Your task to perform on an android device: open app "DuckDuckGo Privacy Browser" (install if not already installed), go to login, and select forgot password Image 0: 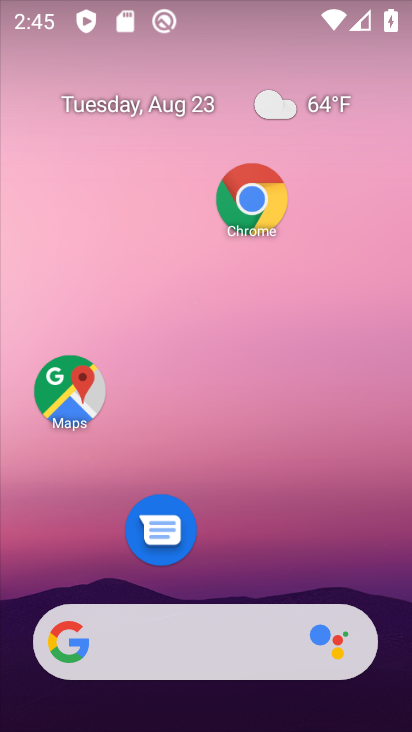
Step 0: drag from (210, 552) to (302, 0)
Your task to perform on an android device: open app "DuckDuckGo Privacy Browser" (install if not already installed), go to login, and select forgot password Image 1: 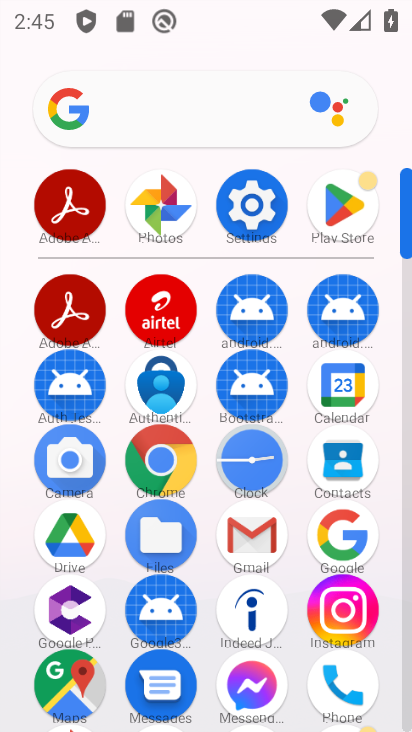
Step 1: click (342, 221)
Your task to perform on an android device: open app "DuckDuckGo Privacy Browser" (install if not already installed), go to login, and select forgot password Image 2: 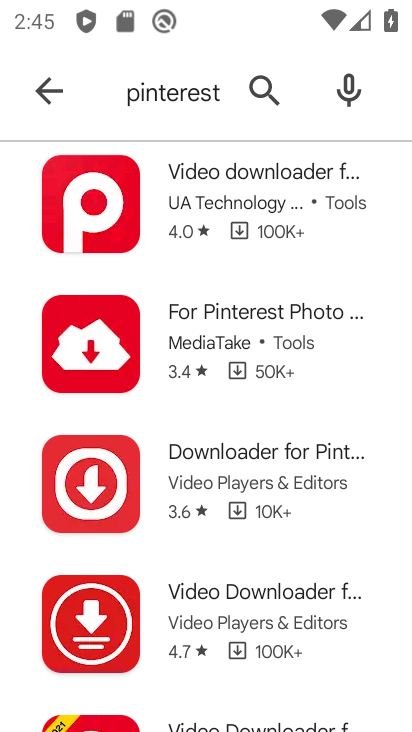
Step 2: click (168, 104)
Your task to perform on an android device: open app "DuckDuckGo Privacy Browser" (install if not already installed), go to login, and select forgot password Image 3: 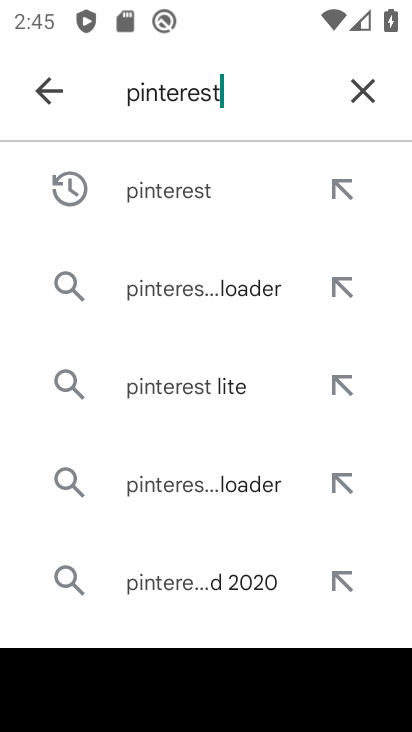
Step 3: click (355, 91)
Your task to perform on an android device: open app "DuckDuckGo Privacy Browser" (install if not already installed), go to login, and select forgot password Image 4: 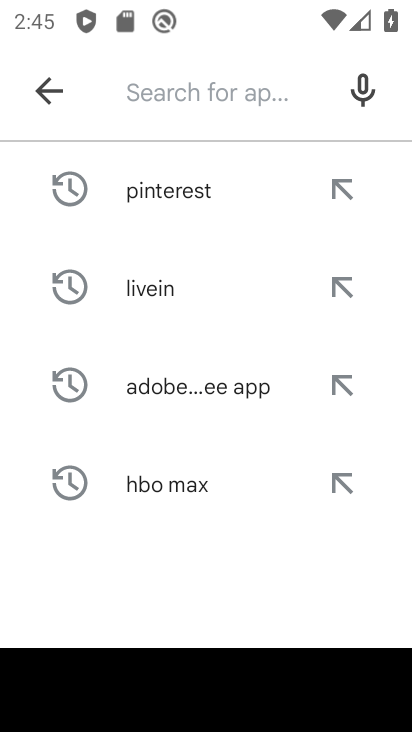
Step 4: type "Duckduckgo"
Your task to perform on an android device: open app "DuckDuckGo Privacy Browser" (install if not already installed), go to login, and select forgot password Image 5: 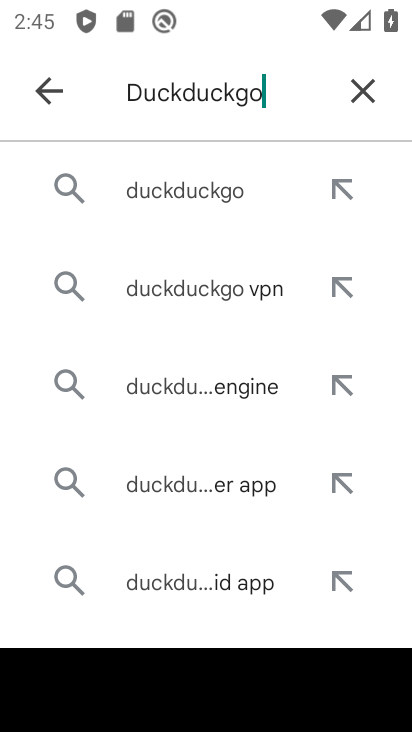
Step 5: click (218, 185)
Your task to perform on an android device: open app "DuckDuckGo Privacy Browser" (install if not already installed), go to login, and select forgot password Image 6: 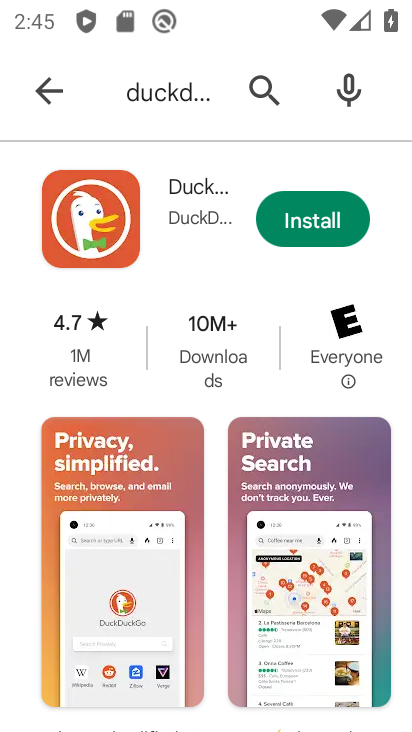
Step 6: click (330, 219)
Your task to perform on an android device: open app "DuckDuckGo Privacy Browser" (install if not already installed), go to login, and select forgot password Image 7: 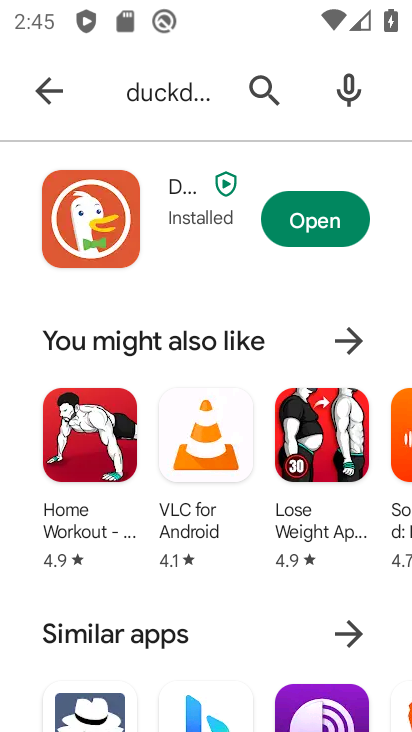
Step 7: click (326, 223)
Your task to perform on an android device: open app "DuckDuckGo Privacy Browser" (install if not already installed), go to login, and select forgot password Image 8: 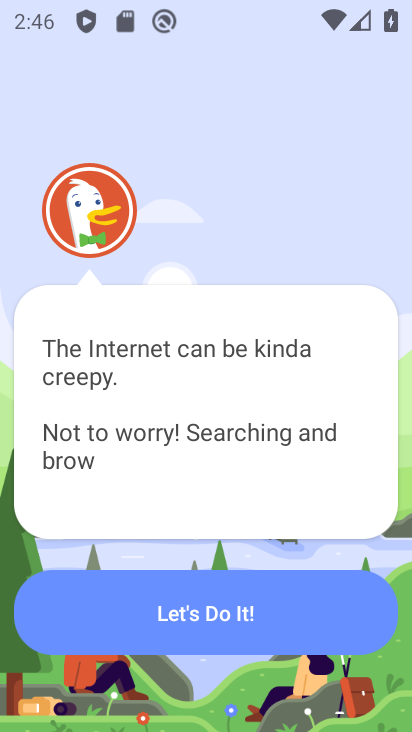
Step 8: click (230, 615)
Your task to perform on an android device: open app "DuckDuckGo Privacy Browser" (install if not already installed), go to login, and select forgot password Image 9: 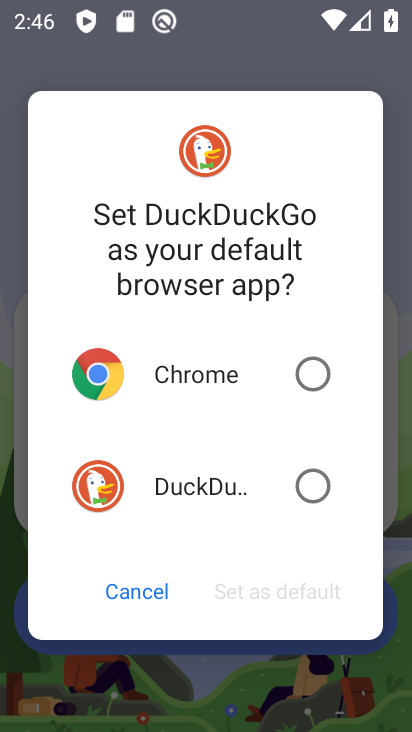
Step 9: click (292, 489)
Your task to perform on an android device: open app "DuckDuckGo Privacy Browser" (install if not already installed), go to login, and select forgot password Image 10: 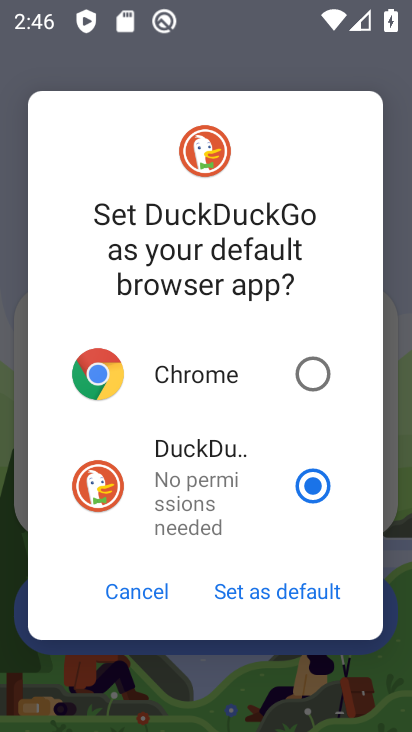
Step 10: click (299, 596)
Your task to perform on an android device: open app "DuckDuckGo Privacy Browser" (install if not already installed), go to login, and select forgot password Image 11: 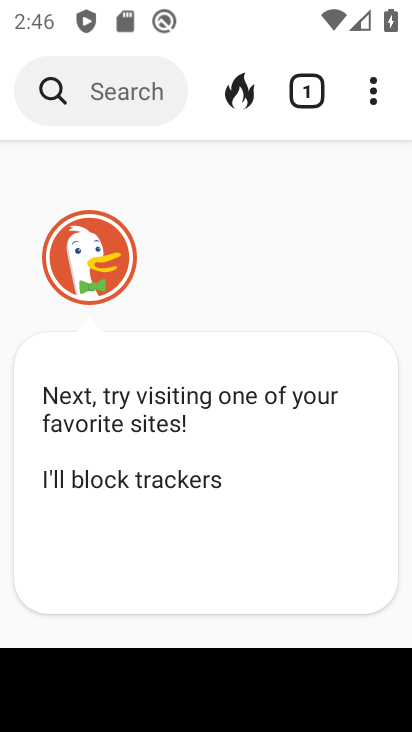
Step 11: click (371, 102)
Your task to perform on an android device: open app "DuckDuckGo Privacy Browser" (install if not already installed), go to login, and select forgot password Image 12: 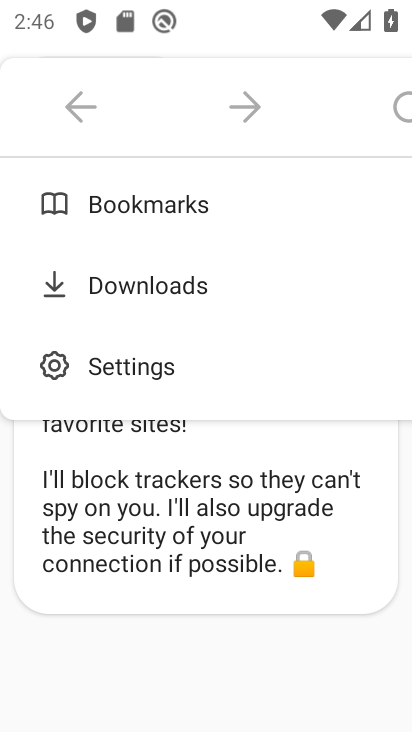
Step 12: click (159, 369)
Your task to perform on an android device: open app "DuckDuckGo Privacy Browser" (install if not already installed), go to login, and select forgot password Image 13: 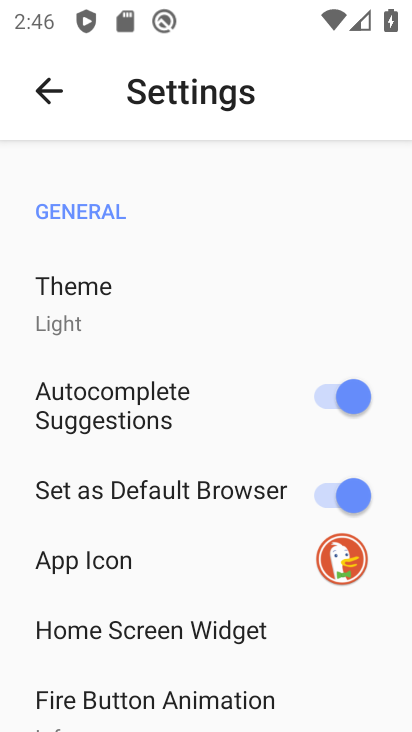
Step 13: task complete